Your task to perform on an android device: set default search engine in the chrome app Image 0: 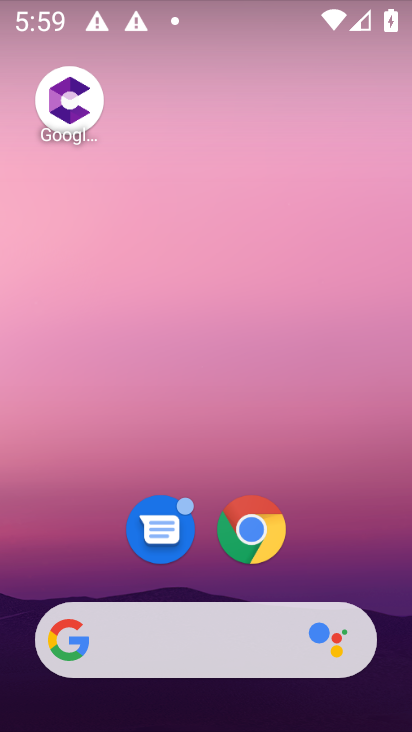
Step 0: click (243, 532)
Your task to perform on an android device: set default search engine in the chrome app Image 1: 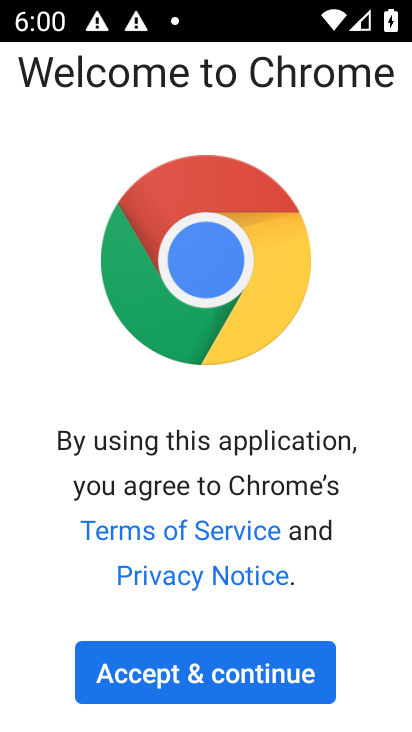
Step 1: click (185, 664)
Your task to perform on an android device: set default search engine in the chrome app Image 2: 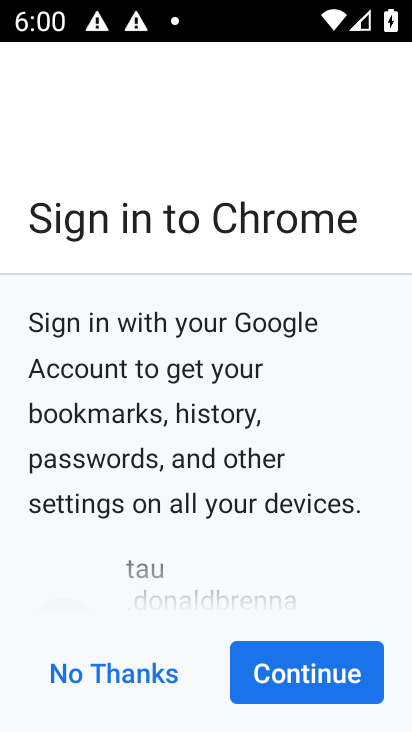
Step 2: click (292, 673)
Your task to perform on an android device: set default search engine in the chrome app Image 3: 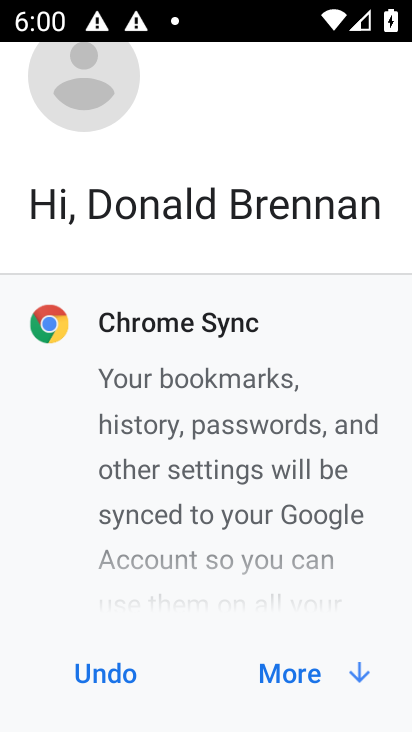
Step 3: click (292, 673)
Your task to perform on an android device: set default search engine in the chrome app Image 4: 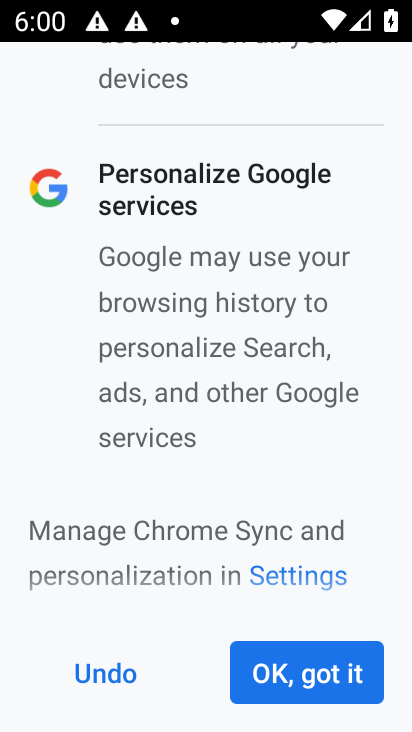
Step 4: click (292, 673)
Your task to perform on an android device: set default search engine in the chrome app Image 5: 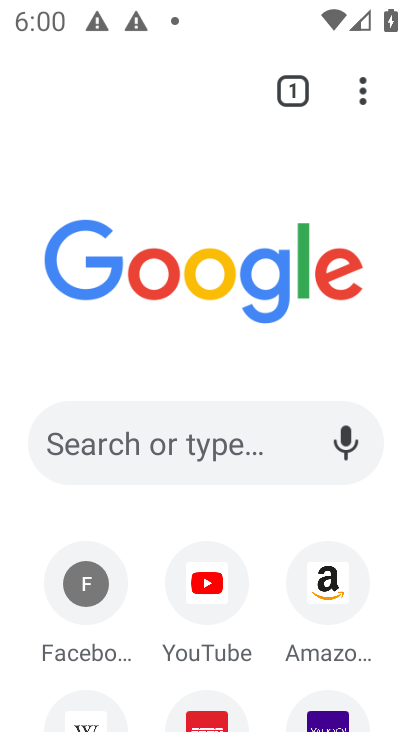
Step 5: click (365, 94)
Your task to perform on an android device: set default search engine in the chrome app Image 6: 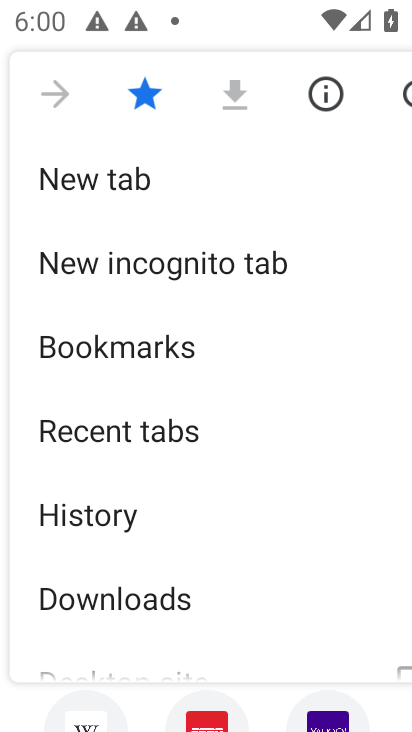
Step 6: drag from (96, 619) to (106, 393)
Your task to perform on an android device: set default search engine in the chrome app Image 7: 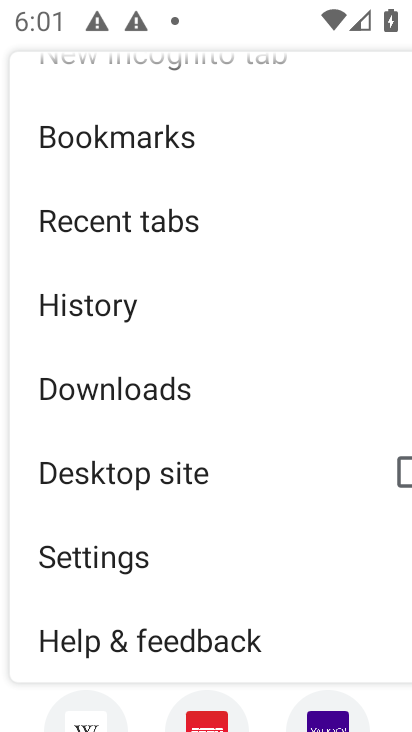
Step 7: click (79, 553)
Your task to perform on an android device: set default search engine in the chrome app Image 8: 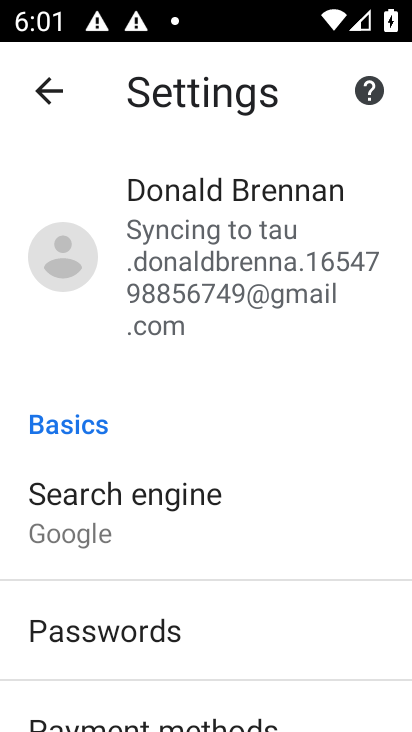
Step 8: click (105, 545)
Your task to perform on an android device: set default search engine in the chrome app Image 9: 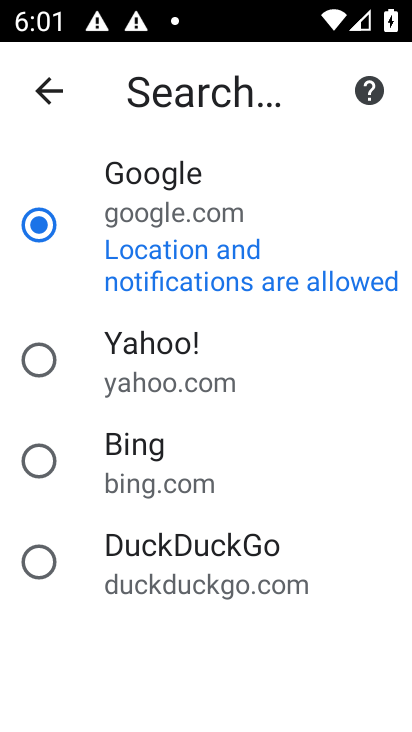
Step 9: click (38, 345)
Your task to perform on an android device: set default search engine in the chrome app Image 10: 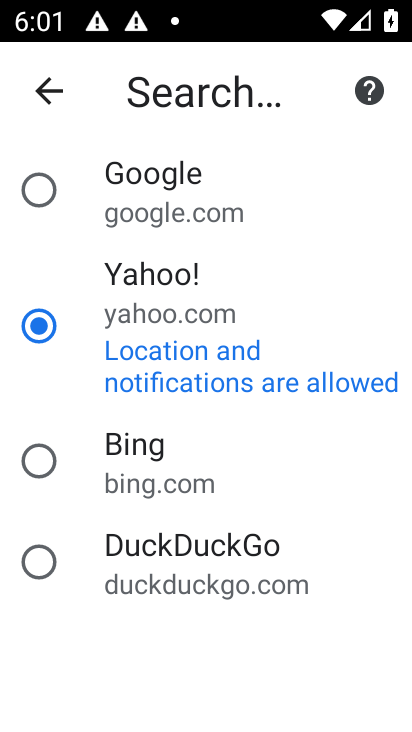
Step 10: task complete